Your task to perform on an android device: turn off location history Image 0: 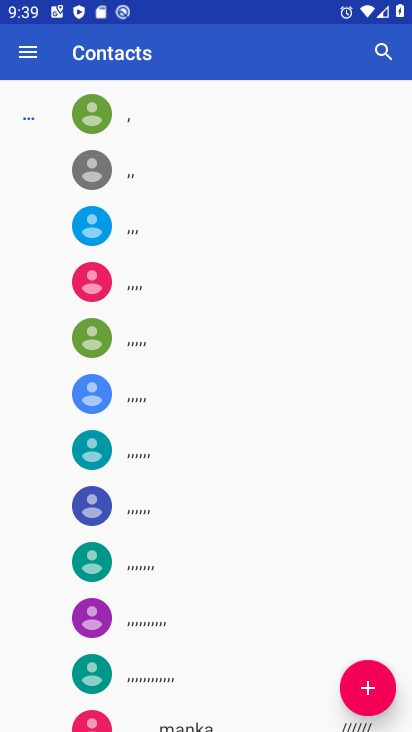
Step 0: press home button
Your task to perform on an android device: turn off location history Image 1: 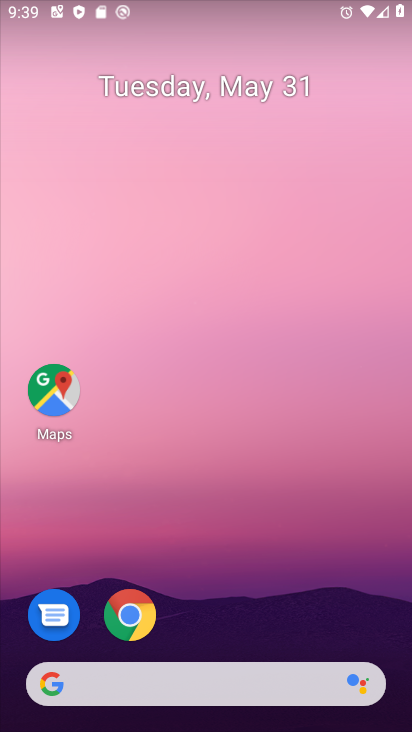
Step 1: click (55, 387)
Your task to perform on an android device: turn off location history Image 2: 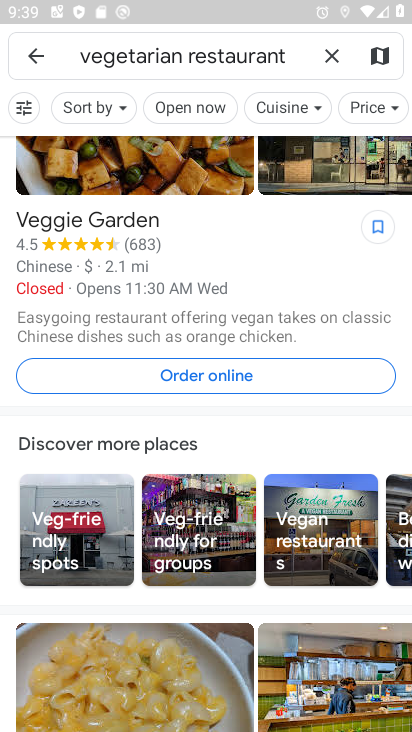
Step 2: click (328, 51)
Your task to perform on an android device: turn off location history Image 3: 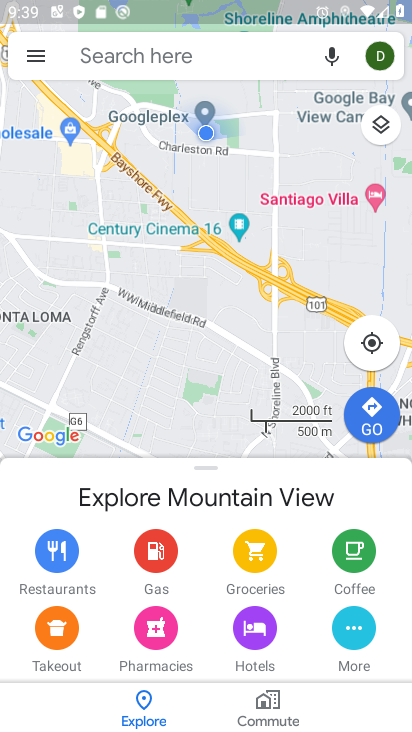
Step 3: click (39, 56)
Your task to perform on an android device: turn off location history Image 4: 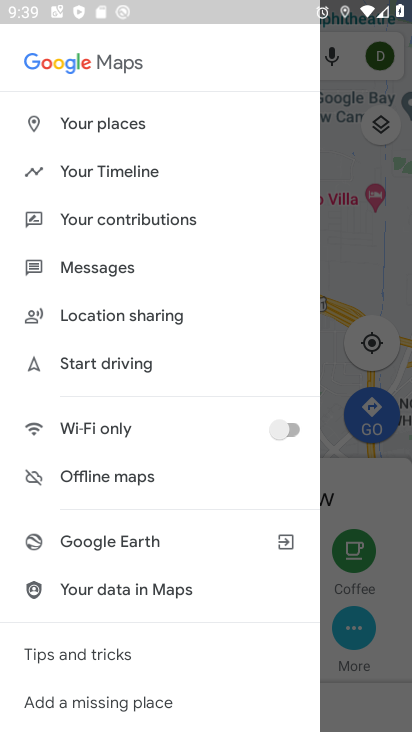
Step 4: drag from (167, 638) to (223, 158)
Your task to perform on an android device: turn off location history Image 5: 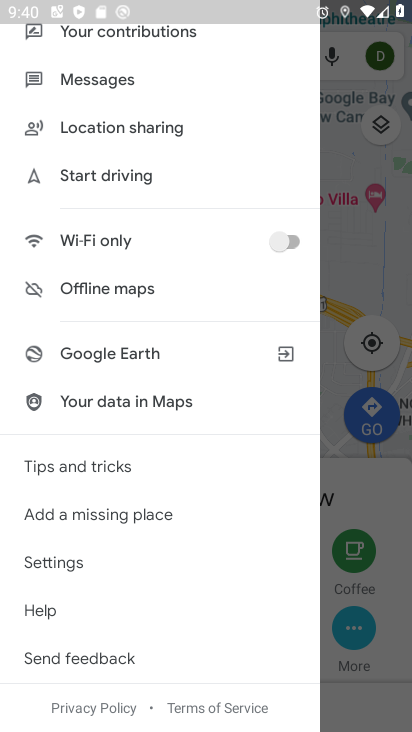
Step 5: click (45, 562)
Your task to perform on an android device: turn off location history Image 6: 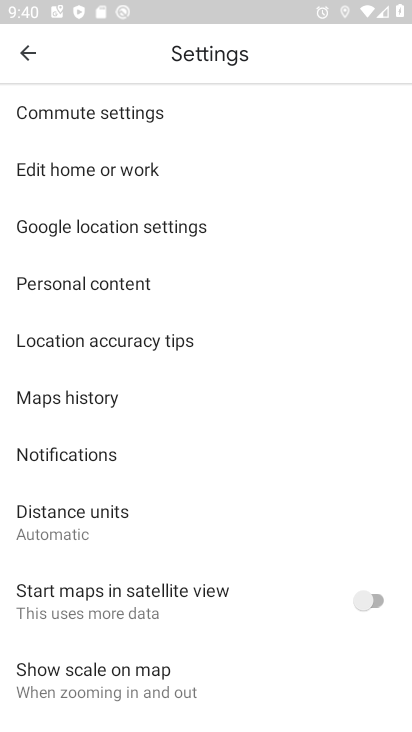
Step 6: click (83, 299)
Your task to perform on an android device: turn off location history Image 7: 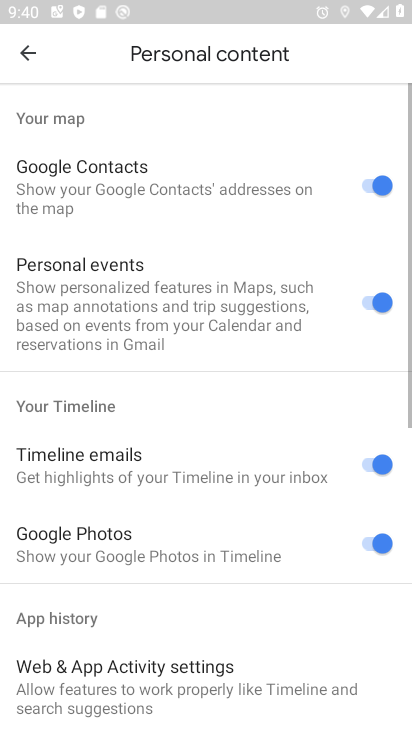
Step 7: task complete